Your task to perform on an android device: Open settings on Google Maps Image 0: 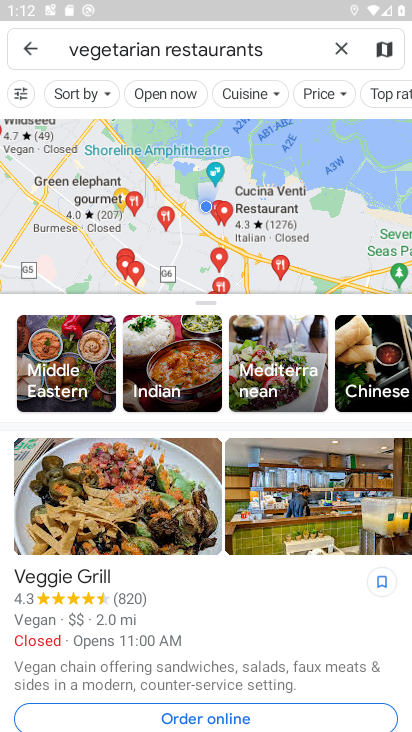
Step 0: click (30, 54)
Your task to perform on an android device: Open settings on Google Maps Image 1: 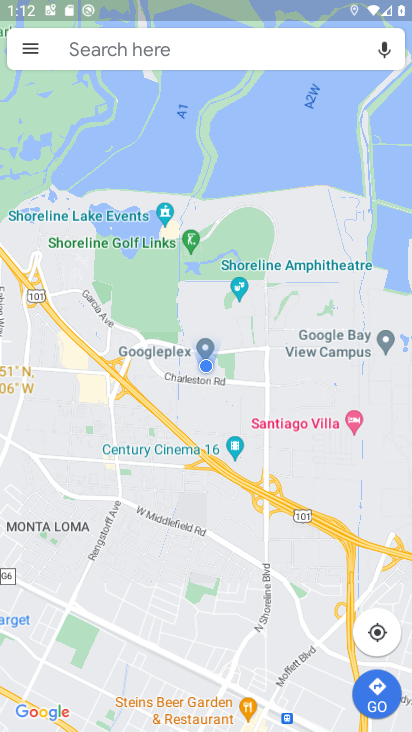
Step 1: click (26, 49)
Your task to perform on an android device: Open settings on Google Maps Image 2: 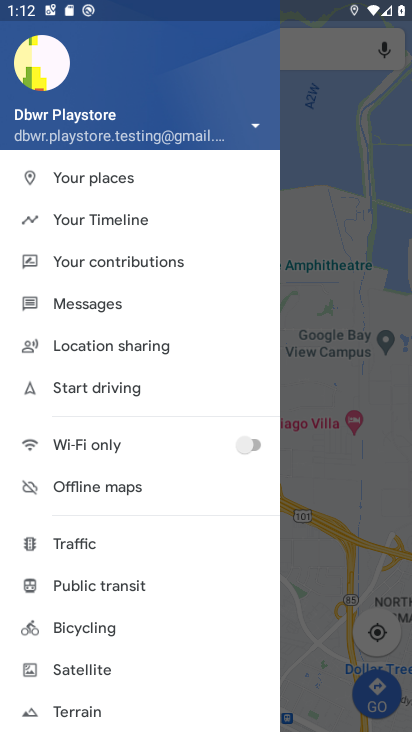
Step 2: drag from (142, 668) to (128, 362)
Your task to perform on an android device: Open settings on Google Maps Image 3: 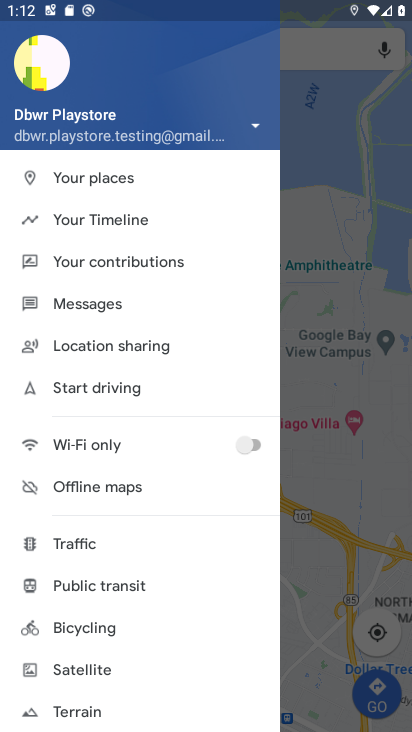
Step 3: drag from (133, 493) to (157, 313)
Your task to perform on an android device: Open settings on Google Maps Image 4: 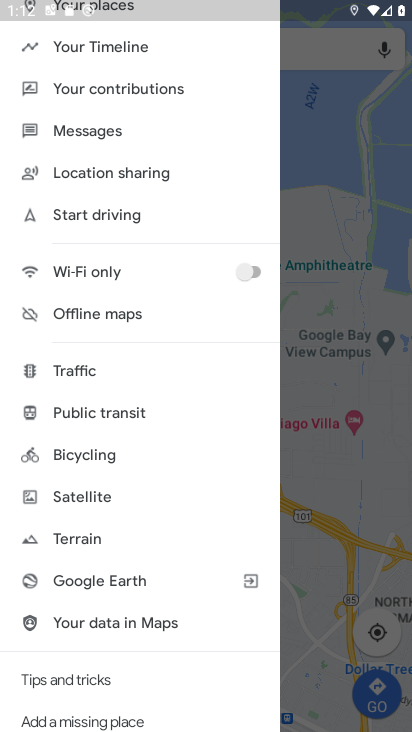
Step 4: drag from (163, 621) to (173, 334)
Your task to perform on an android device: Open settings on Google Maps Image 5: 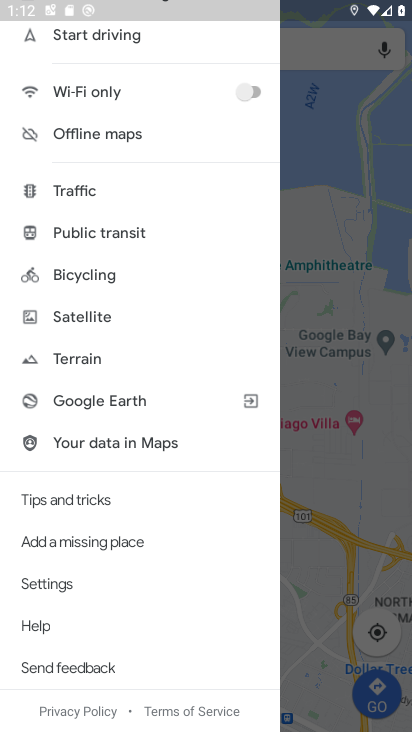
Step 5: click (50, 583)
Your task to perform on an android device: Open settings on Google Maps Image 6: 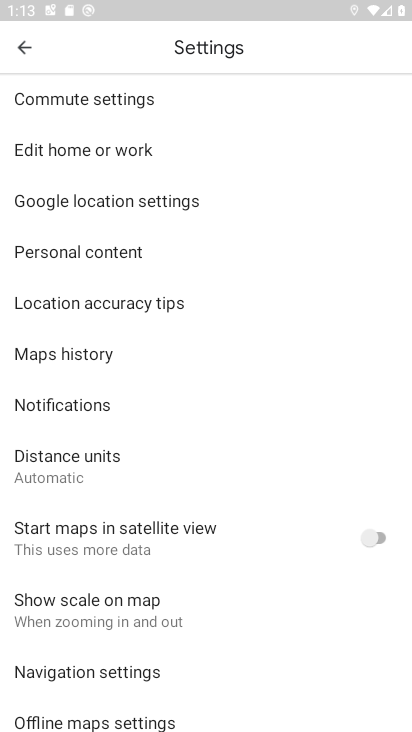
Step 6: task complete